Your task to perform on an android device: Open the calendar and show me this week's events? Image 0: 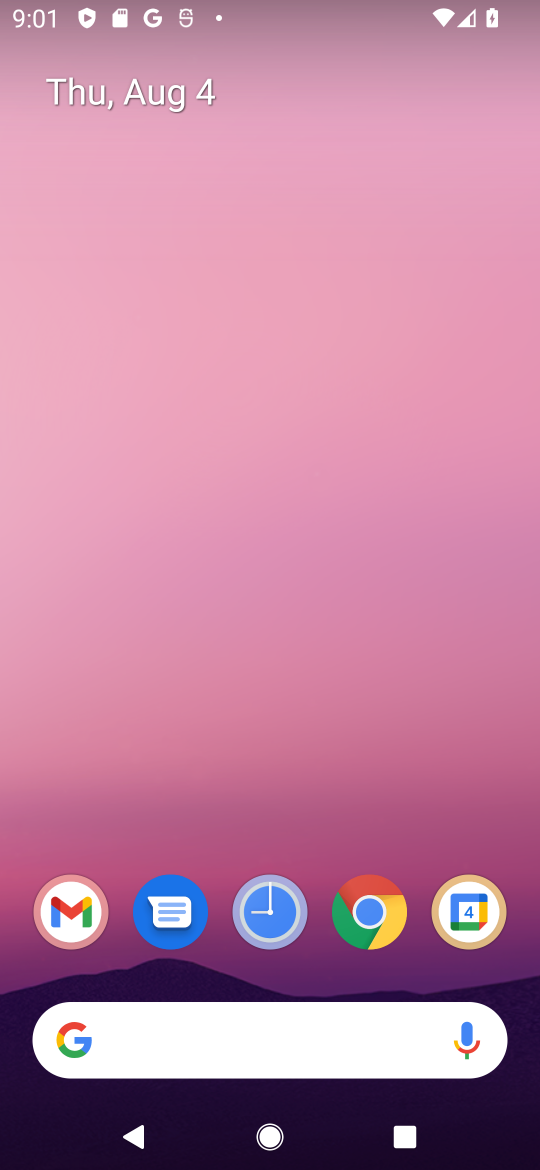
Step 0: click (469, 924)
Your task to perform on an android device: Open the calendar and show me this week's events? Image 1: 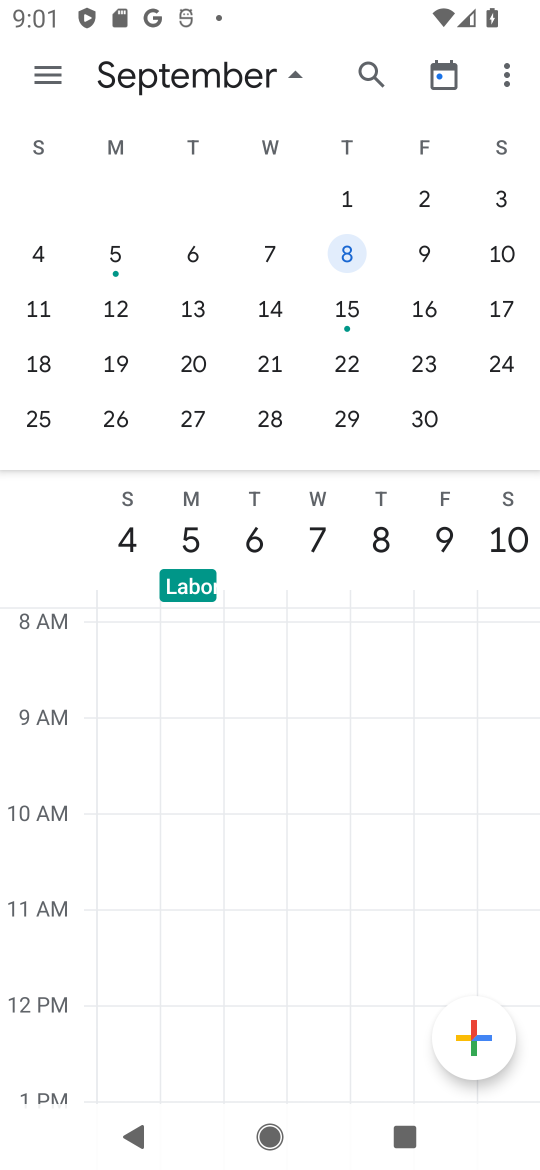
Step 1: drag from (114, 345) to (510, 332)
Your task to perform on an android device: Open the calendar and show me this week's events? Image 2: 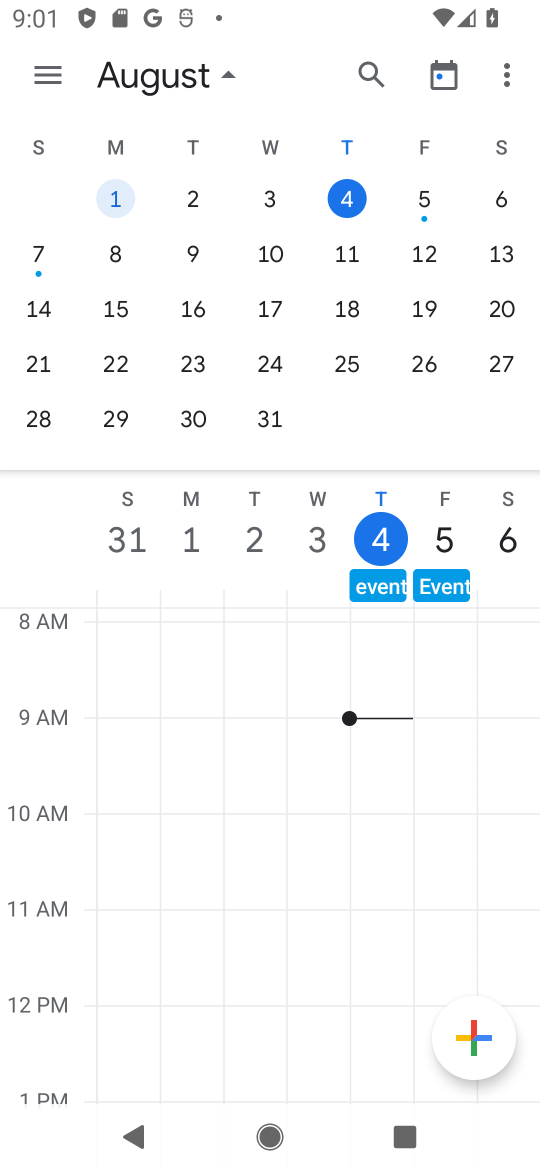
Step 2: click (55, 77)
Your task to perform on an android device: Open the calendar and show me this week's events? Image 3: 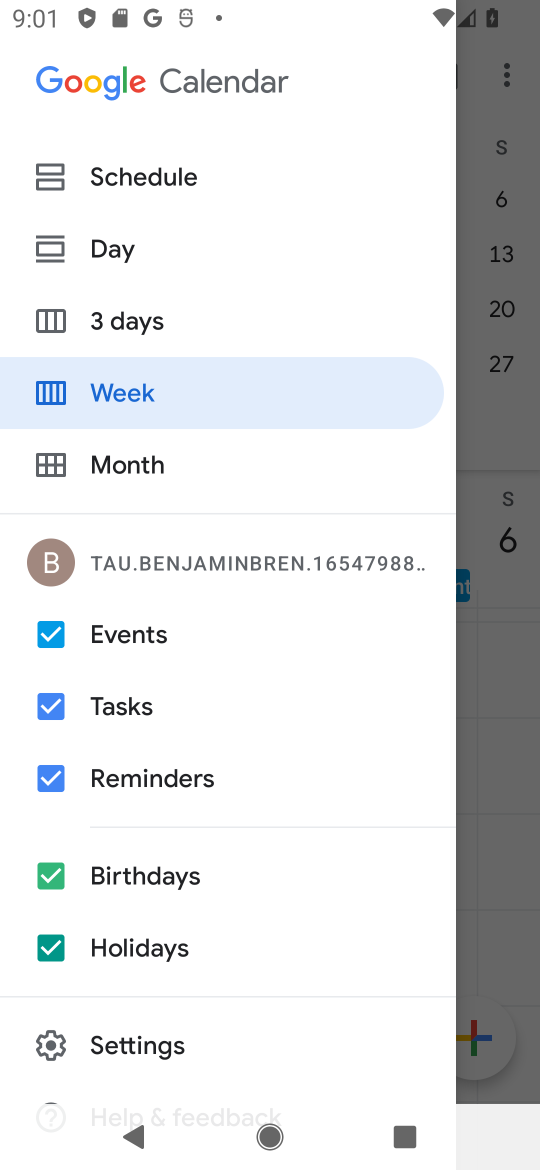
Step 3: click (50, 951)
Your task to perform on an android device: Open the calendar and show me this week's events? Image 4: 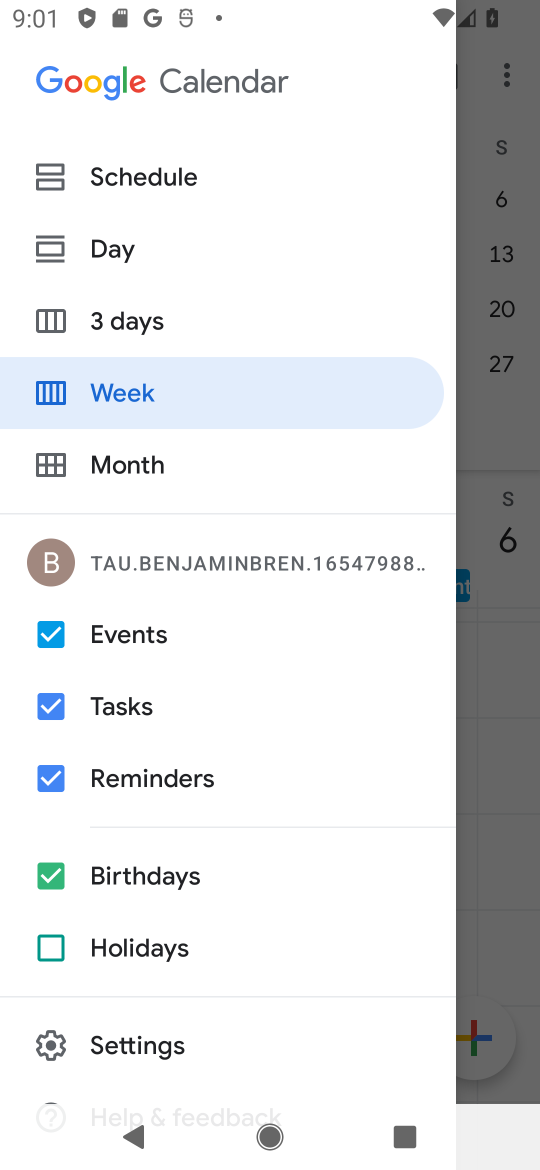
Step 4: click (52, 874)
Your task to perform on an android device: Open the calendar and show me this week's events? Image 5: 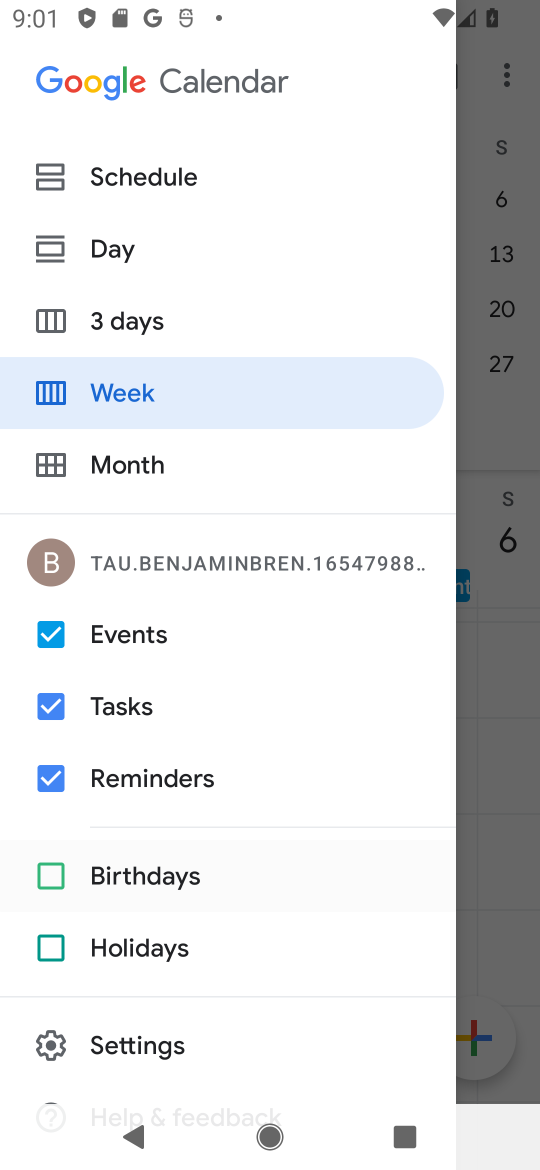
Step 5: click (51, 771)
Your task to perform on an android device: Open the calendar and show me this week's events? Image 6: 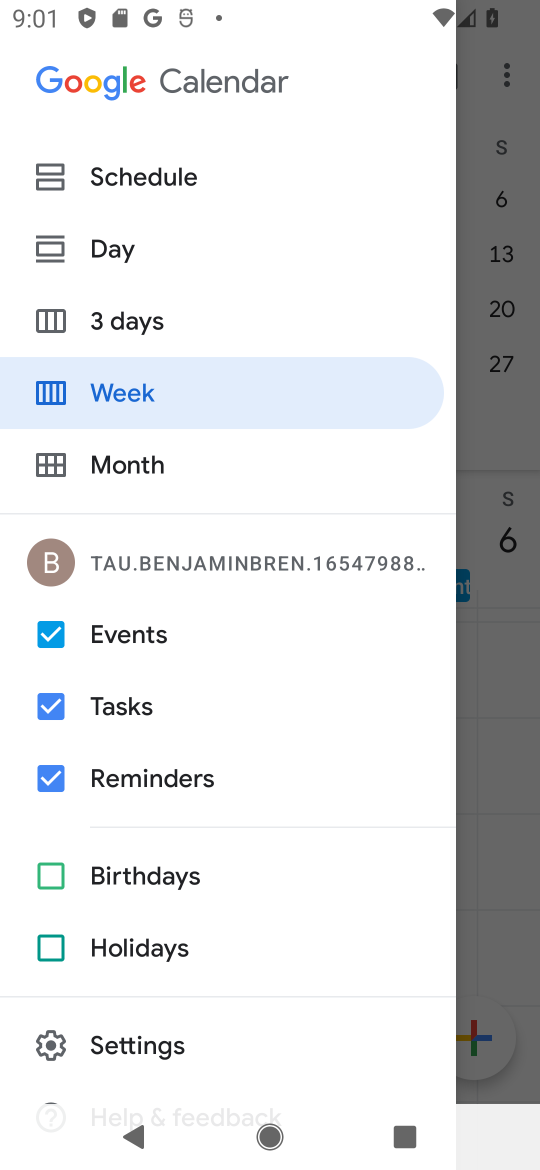
Step 6: click (55, 703)
Your task to perform on an android device: Open the calendar and show me this week's events? Image 7: 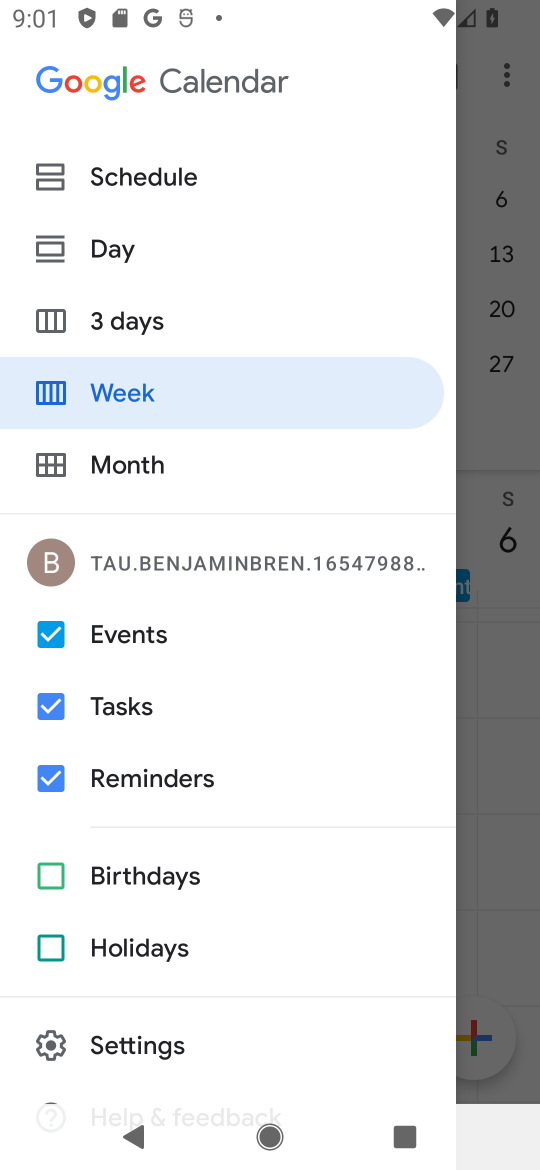
Step 7: click (48, 790)
Your task to perform on an android device: Open the calendar and show me this week's events? Image 8: 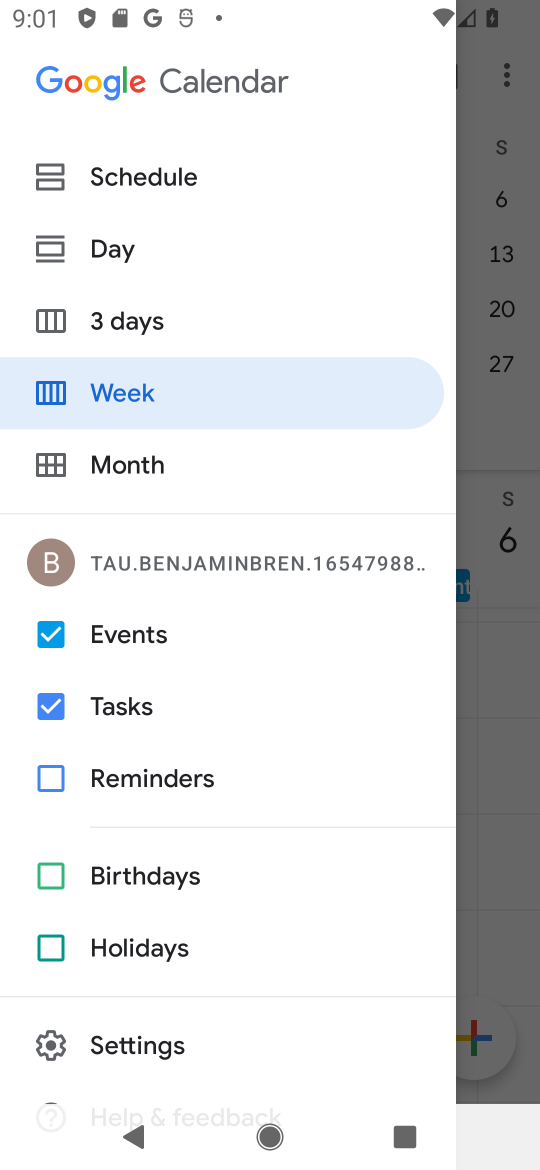
Step 8: click (48, 701)
Your task to perform on an android device: Open the calendar and show me this week's events? Image 9: 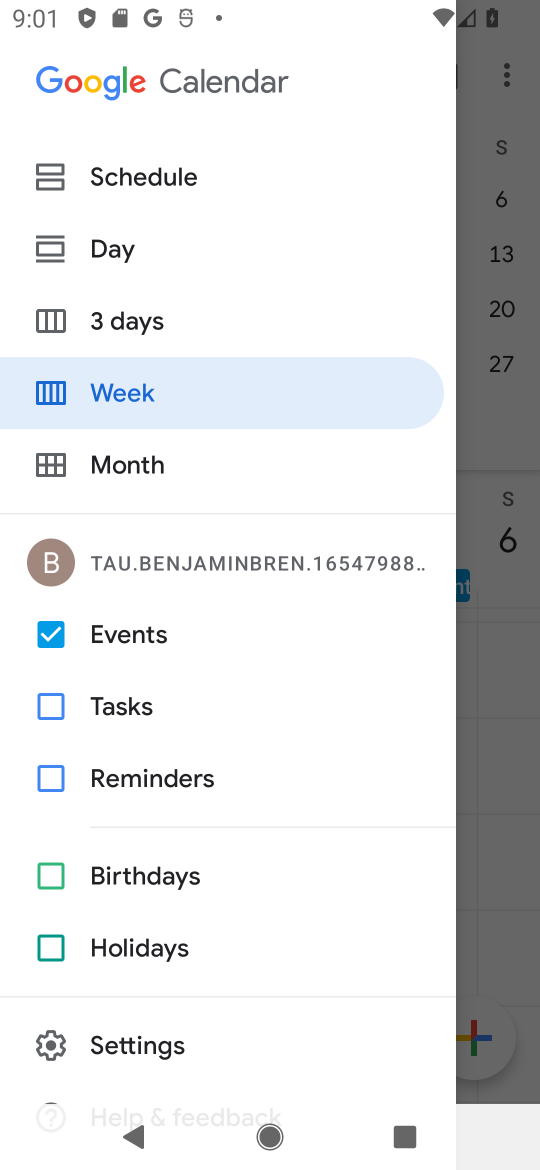
Step 9: click (154, 379)
Your task to perform on an android device: Open the calendar and show me this week's events? Image 10: 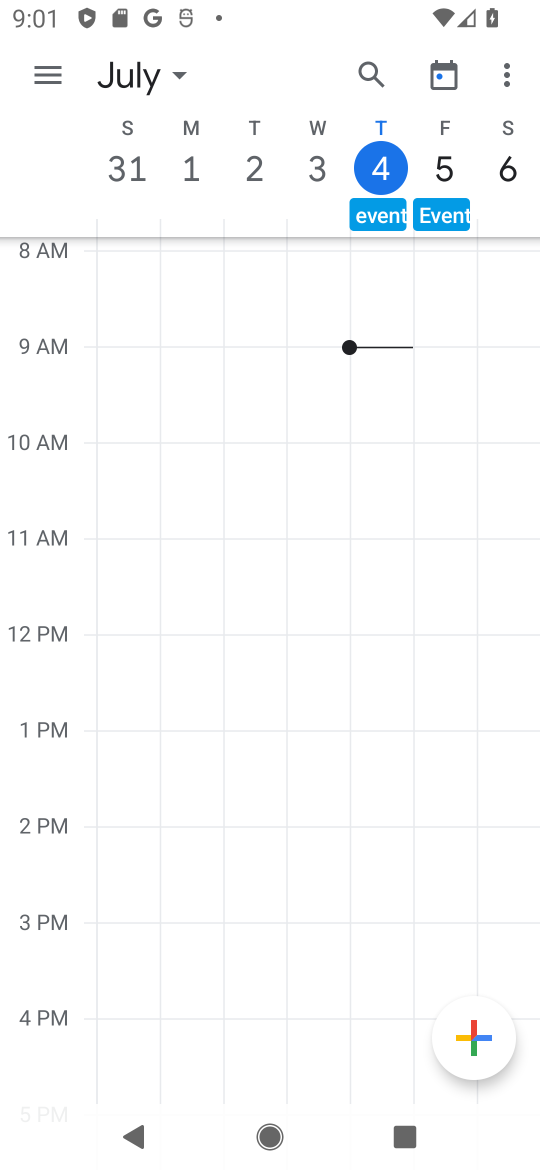
Step 10: task complete